Your task to perform on an android device: turn off translation in the chrome app Image 0: 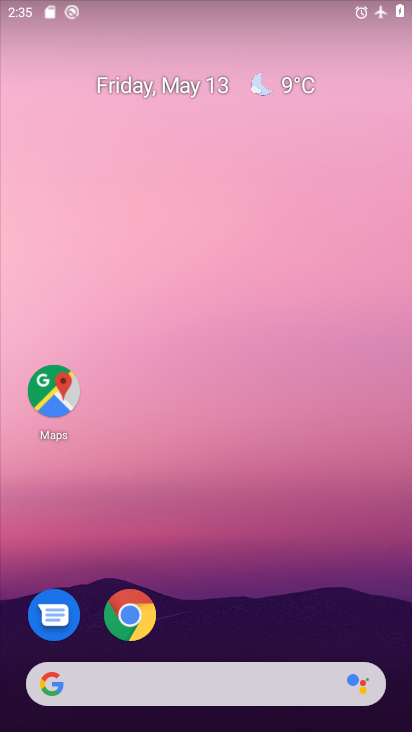
Step 0: drag from (275, 553) to (312, 148)
Your task to perform on an android device: turn off translation in the chrome app Image 1: 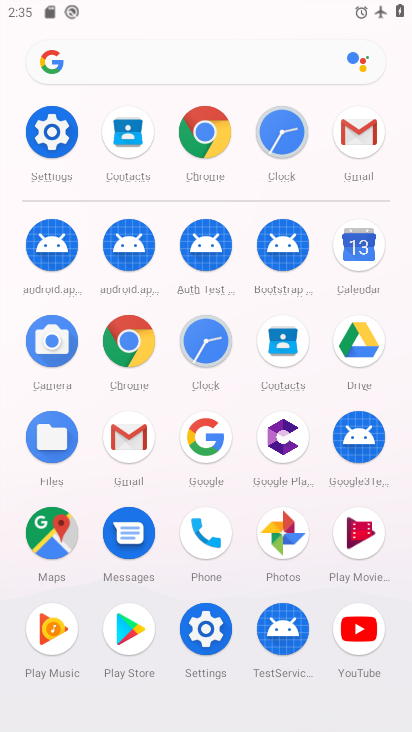
Step 1: click (205, 133)
Your task to perform on an android device: turn off translation in the chrome app Image 2: 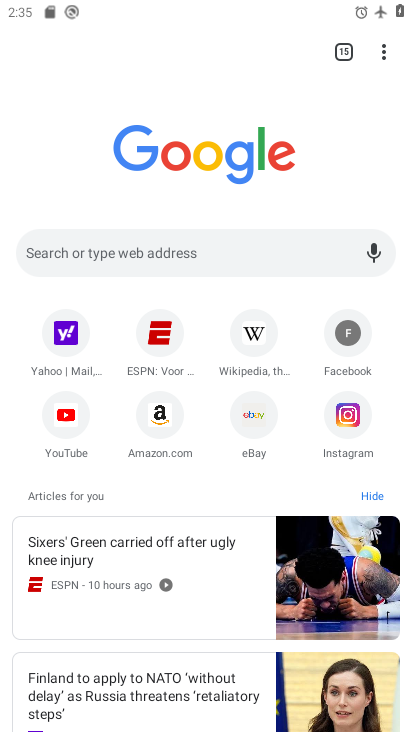
Step 2: click (384, 48)
Your task to perform on an android device: turn off translation in the chrome app Image 3: 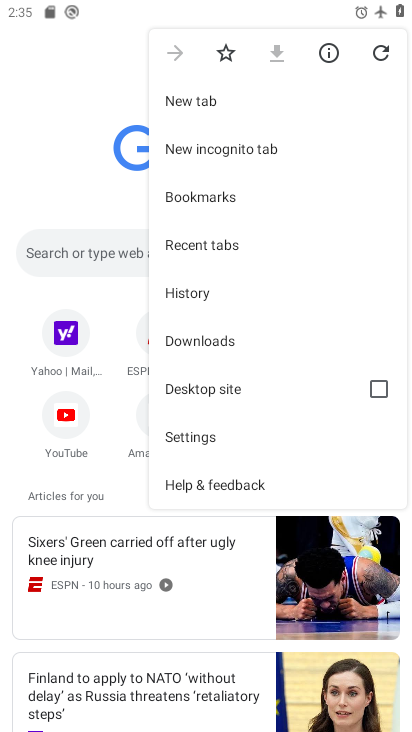
Step 3: click (216, 428)
Your task to perform on an android device: turn off translation in the chrome app Image 4: 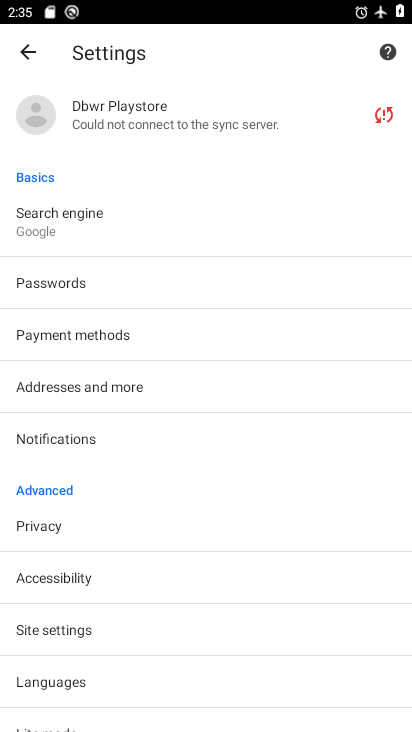
Step 4: click (131, 674)
Your task to perform on an android device: turn off translation in the chrome app Image 5: 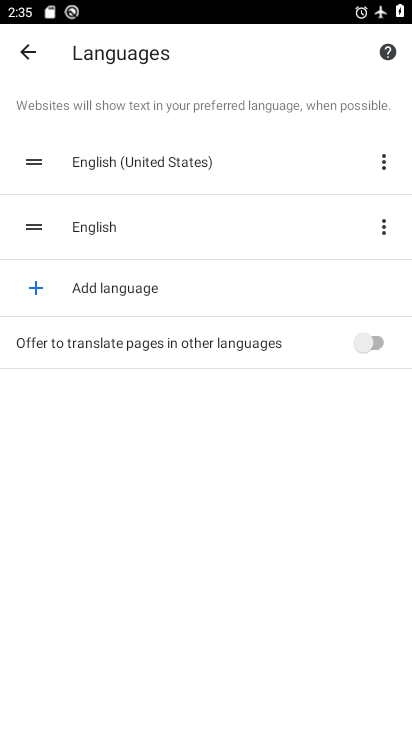
Step 5: task complete